Your task to perform on an android device: manage bookmarks in the chrome app Image 0: 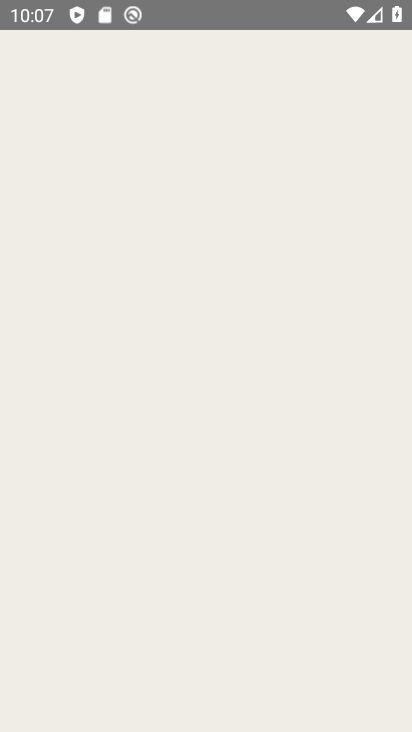
Step 0: click (301, 479)
Your task to perform on an android device: manage bookmarks in the chrome app Image 1: 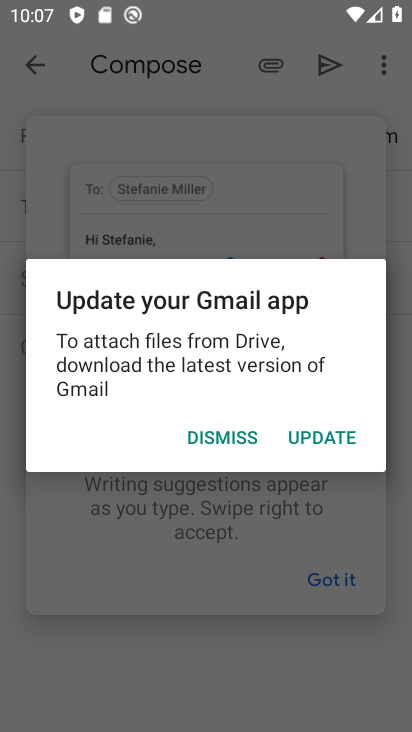
Step 1: press home button
Your task to perform on an android device: manage bookmarks in the chrome app Image 2: 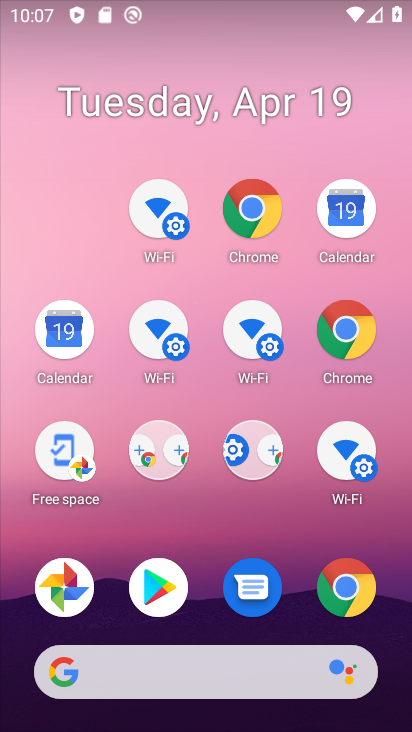
Step 2: click (342, 332)
Your task to perform on an android device: manage bookmarks in the chrome app Image 3: 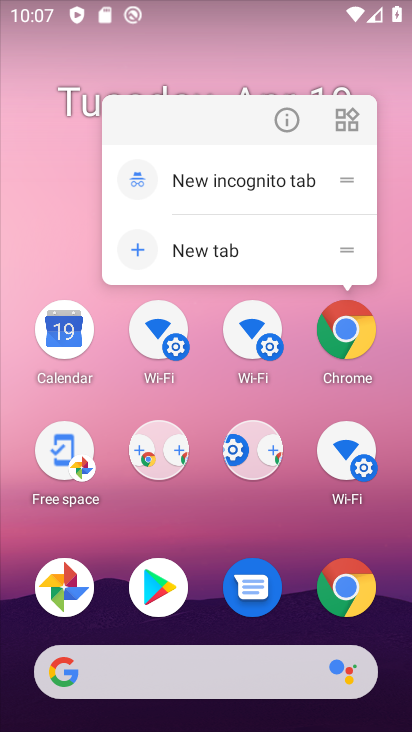
Step 3: click (342, 332)
Your task to perform on an android device: manage bookmarks in the chrome app Image 4: 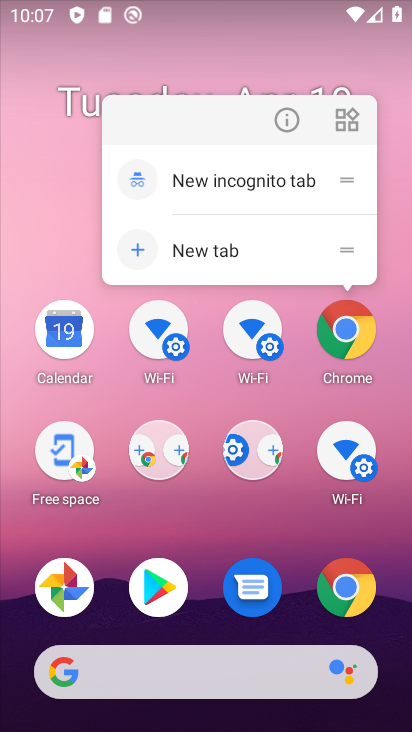
Step 4: click (342, 332)
Your task to perform on an android device: manage bookmarks in the chrome app Image 5: 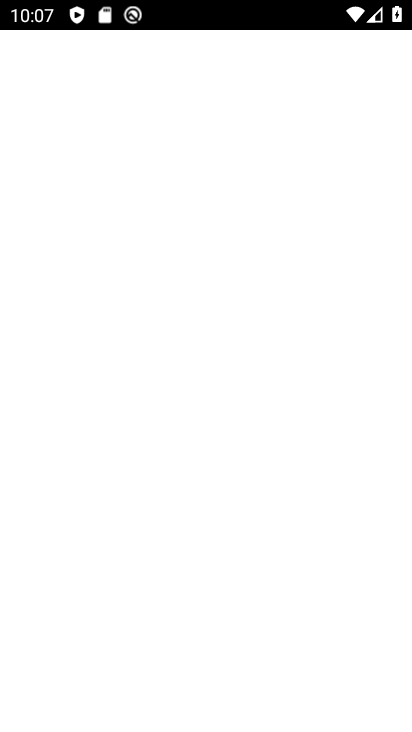
Step 5: click (344, 330)
Your task to perform on an android device: manage bookmarks in the chrome app Image 6: 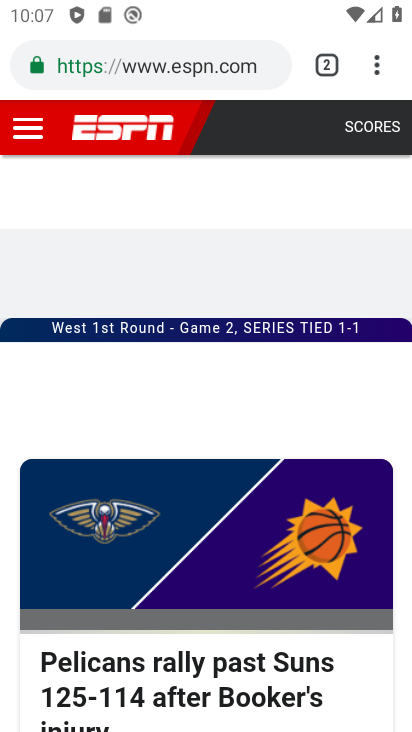
Step 6: drag from (375, 64) to (141, 331)
Your task to perform on an android device: manage bookmarks in the chrome app Image 7: 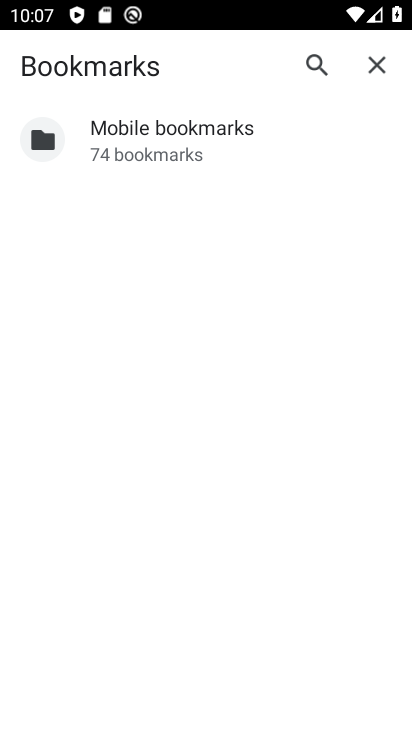
Step 7: click (246, 131)
Your task to perform on an android device: manage bookmarks in the chrome app Image 8: 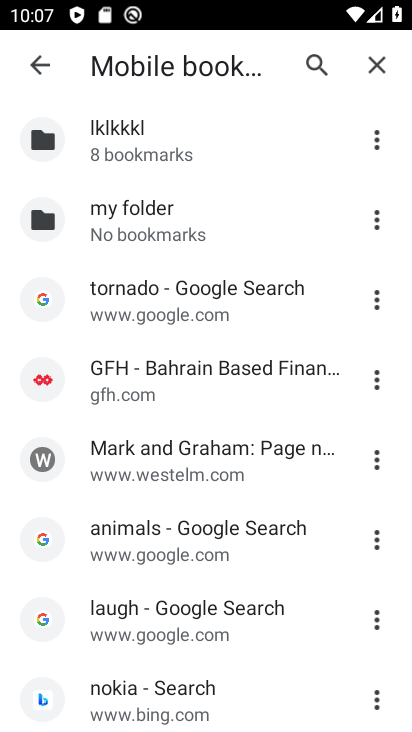
Step 8: click (377, 141)
Your task to perform on an android device: manage bookmarks in the chrome app Image 9: 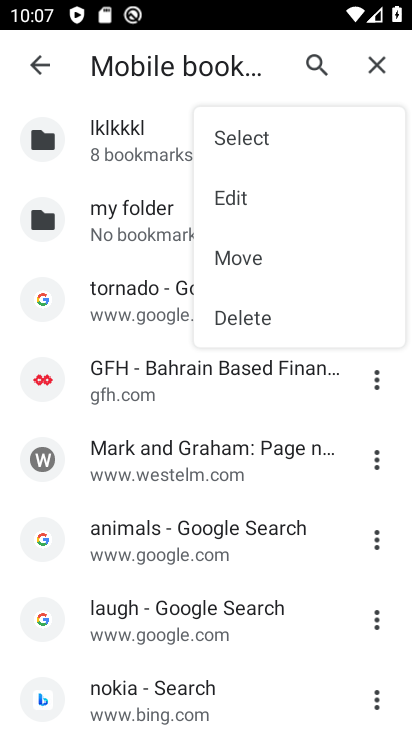
Step 9: click (238, 315)
Your task to perform on an android device: manage bookmarks in the chrome app Image 10: 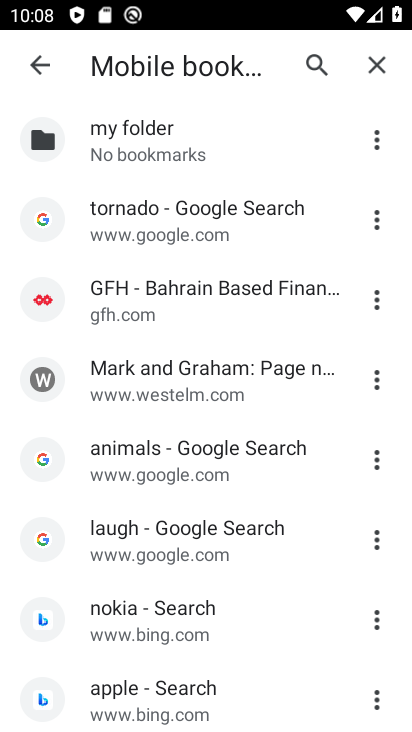
Step 10: press home button
Your task to perform on an android device: manage bookmarks in the chrome app Image 11: 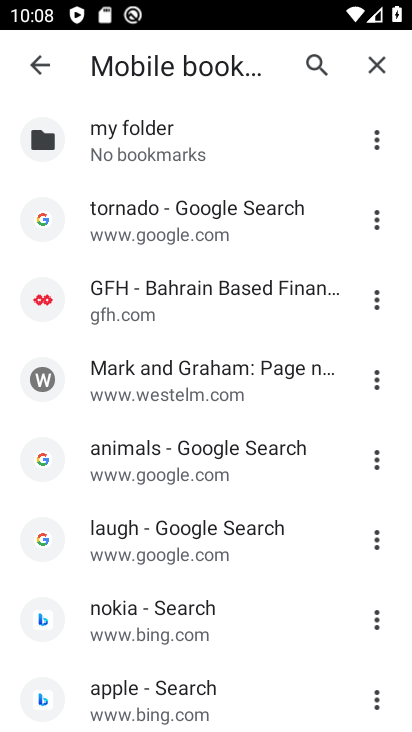
Step 11: press home button
Your task to perform on an android device: manage bookmarks in the chrome app Image 12: 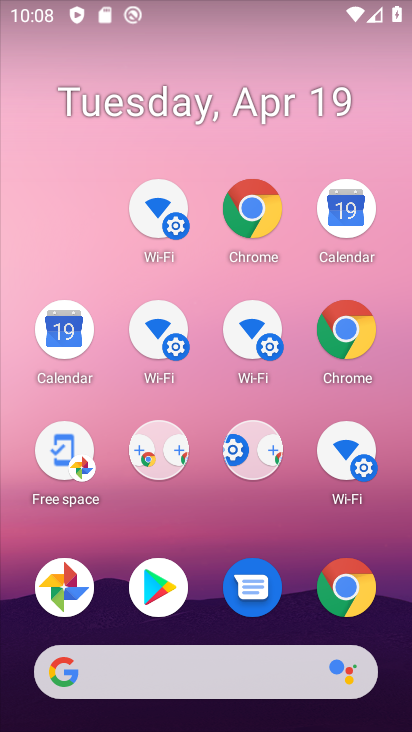
Step 12: drag from (345, 600) to (374, 672)
Your task to perform on an android device: manage bookmarks in the chrome app Image 13: 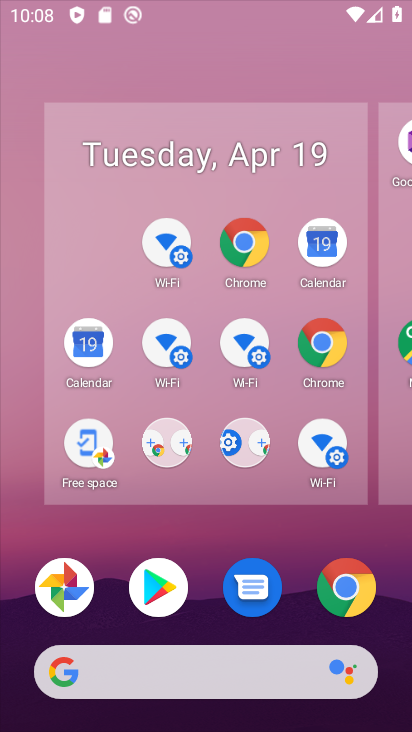
Step 13: click (343, 552)
Your task to perform on an android device: manage bookmarks in the chrome app Image 14: 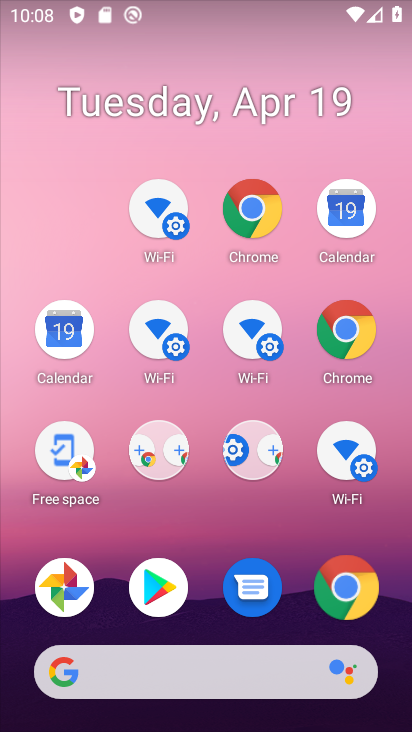
Step 14: click (364, 586)
Your task to perform on an android device: manage bookmarks in the chrome app Image 15: 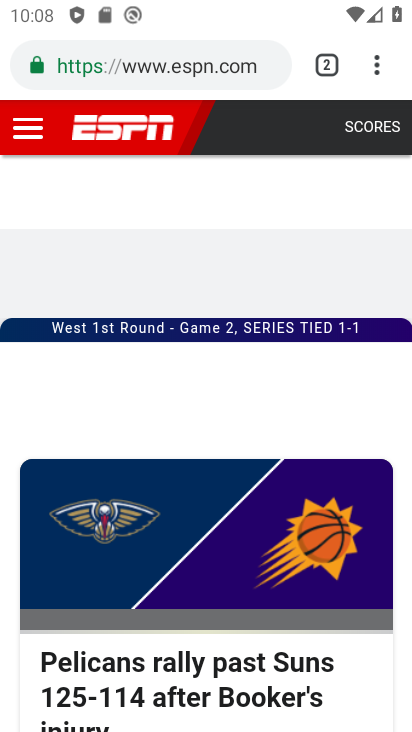
Step 15: drag from (251, 370) to (172, 122)
Your task to perform on an android device: manage bookmarks in the chrome app Image 16: 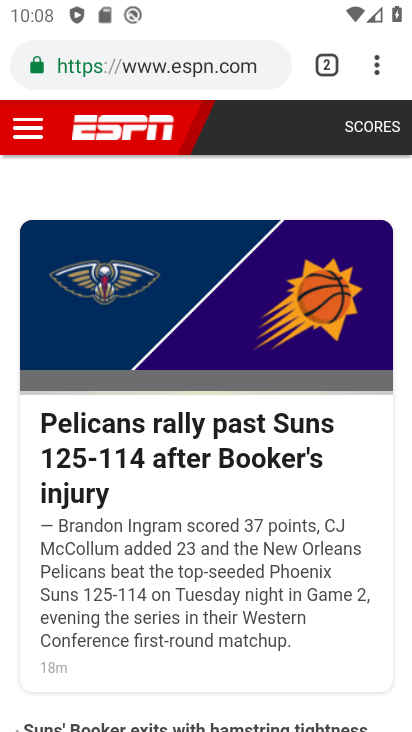
Step 16: drag from (376, 67) to (170, 254)
Your task to perform on an android device: manage bookmarks in the chrome app Image 17: 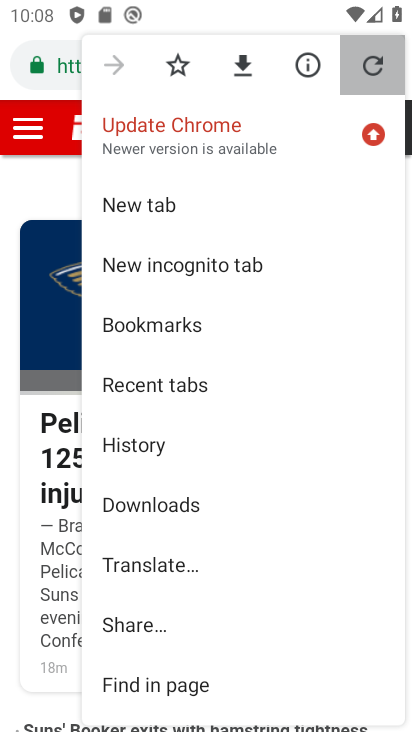
Step 17: drag from (241, 563) to (234, 301)
Your task to perform on an android device: manage bookmarks in the chrome app Image 18: 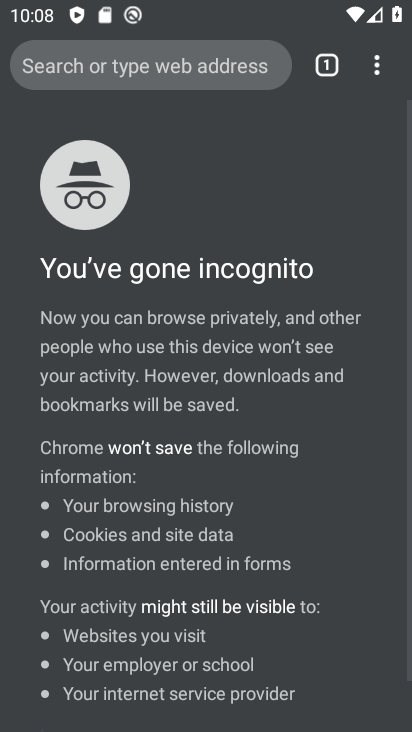
Step 18: drag from (239, 560) to (204, 183)
Your task to perform on an android device: manage bookmarks in the chrome app Image 19: 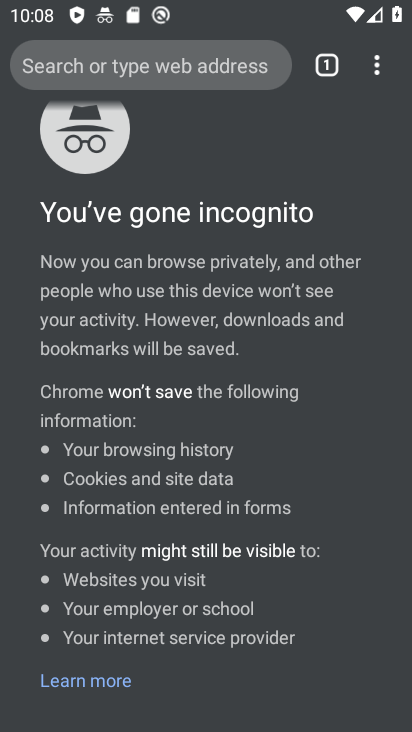
Step 19: drag from (373, 69) to (128, 564)
Your task to perform on an android device: manage bookmarks in the chrome app Image 20: 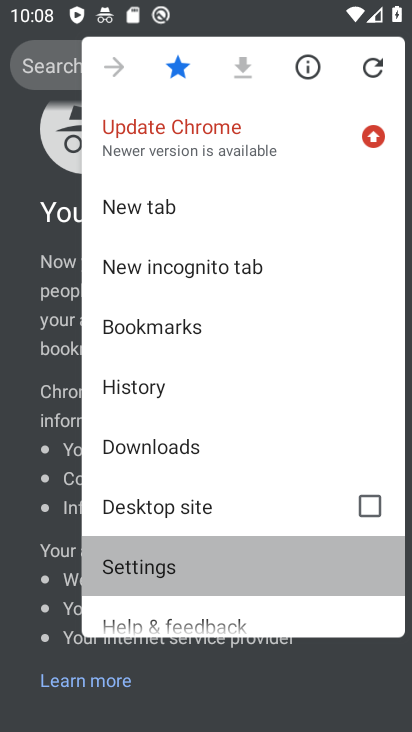
Step 20: click (129, 565)
Your task to perform on an android device: manage bookmarks in the chrome app Image 21: 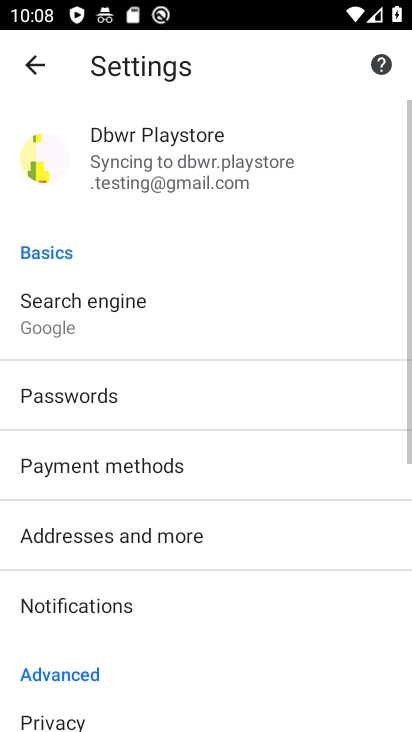
Step 21: drag from (127, 615) to (82, 341)
Your task to perform on an android device: manage bookmarks in the chrome app Image 22: 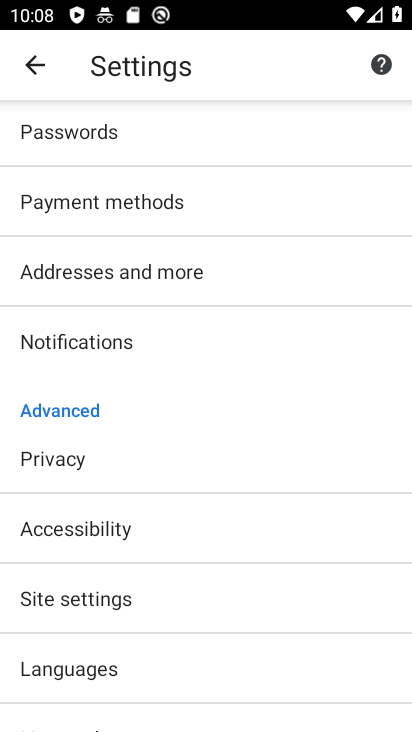
Step 22: click (35, 62)
Your task to perform on an android device: manage bookmarks in the chrome app Image 23: 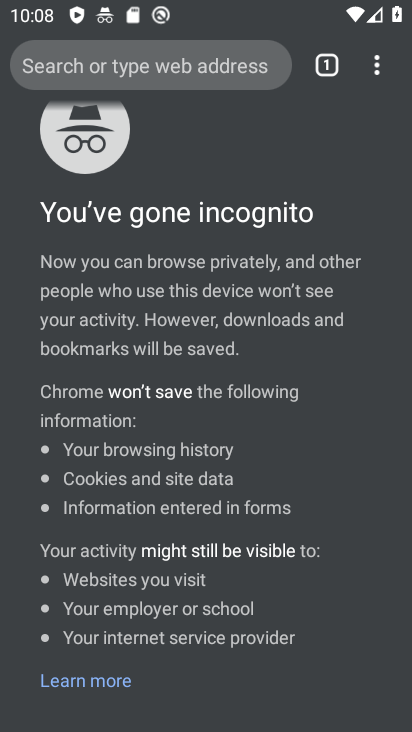
Step 23: click (379, 66)
Your task to perform on an android device: manage bookmarks in the chrome app Image 24: 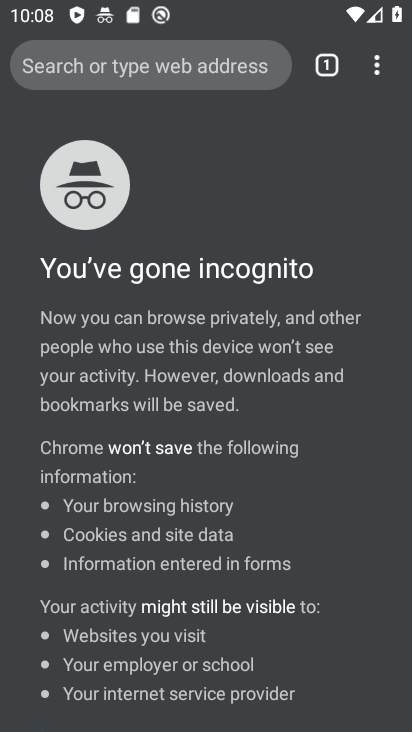
Step 24: drag from (370, 65) to (120, 320)
Your task to perform on an android device: manage bookmarks in the chrome app Image 25: 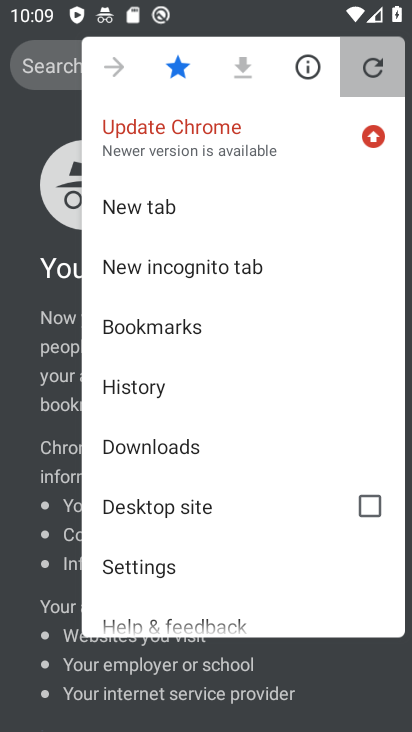
Step 25: click (124, 324)
Your task to perform on an android device: manage bookmarks in the chrome app Image 26: 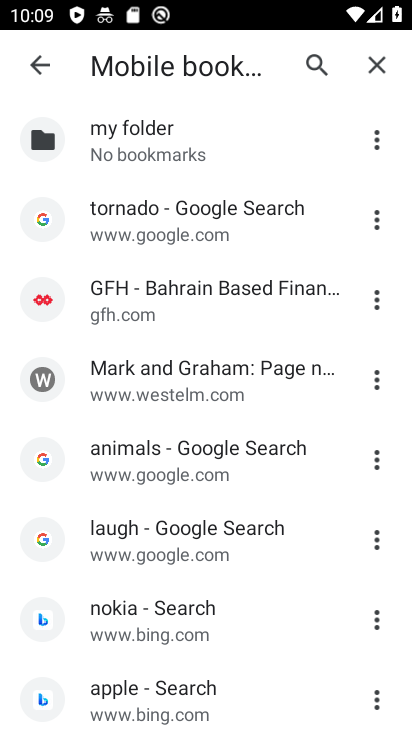
Step 26: click (375, 139)
Your task to perform on an android device: manage bookmarks in the chrome app Image 27: 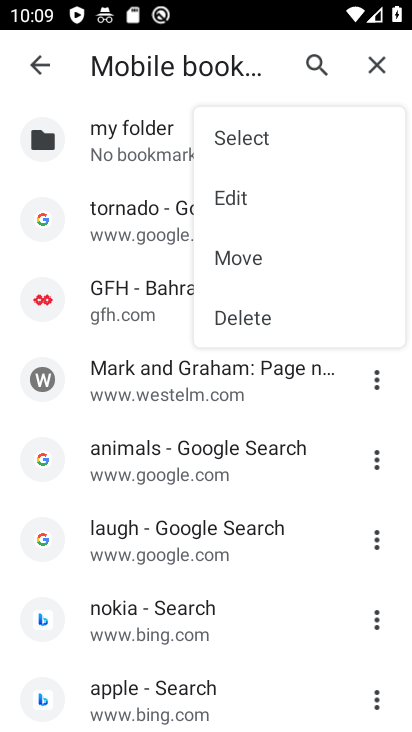
Step 27: click (241, 314)
Your task to perform on an android device: manage bookmarks in the chrome app Image 28: 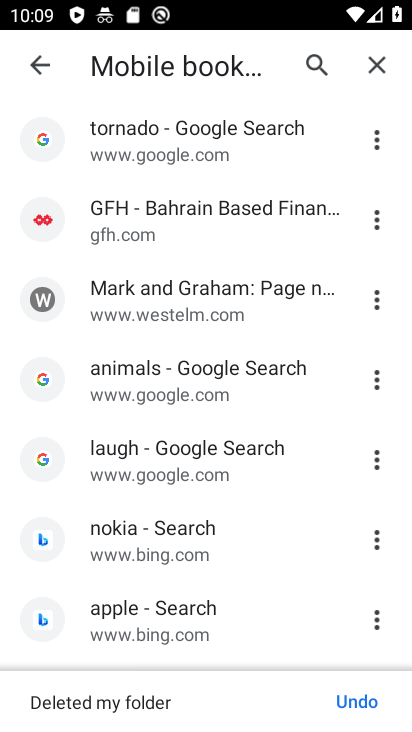
Step 28: task complete